Your task to perform on an android device: delete a single message in the gmail app Image 0: 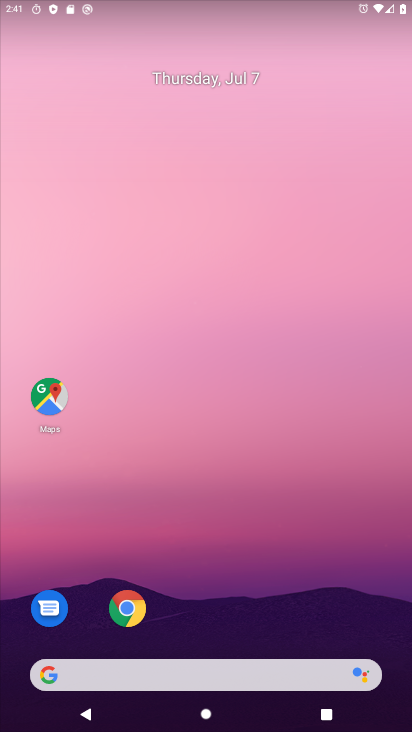
Step 0: drag from (266, 716) to (206, 59)
Your task to perform on an android device: delete a single message in the gmail app Image 1: 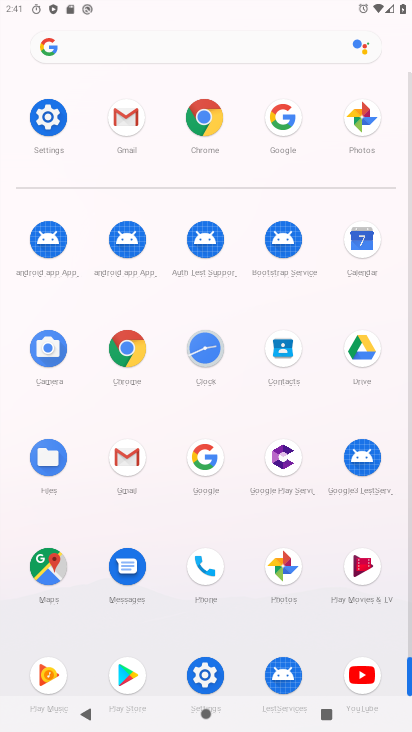
Step 1: click (131, 450)
Your task to perform on an android device: delete a single message in the gmail app Image 2: 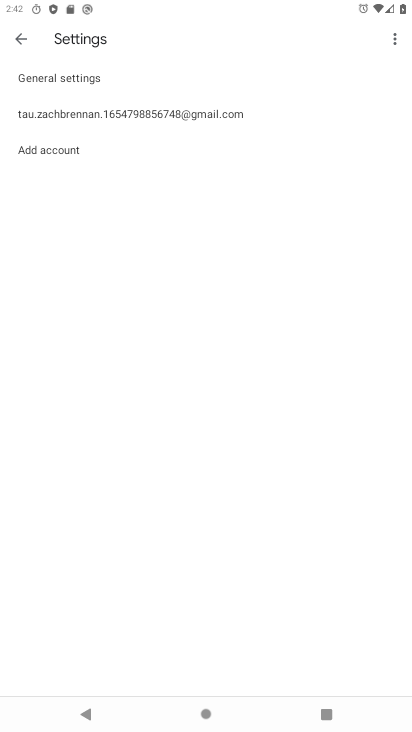
Step 2: click (21, 39)
Your task to perform on an android device: delete a single message in the gmail app Image 3: 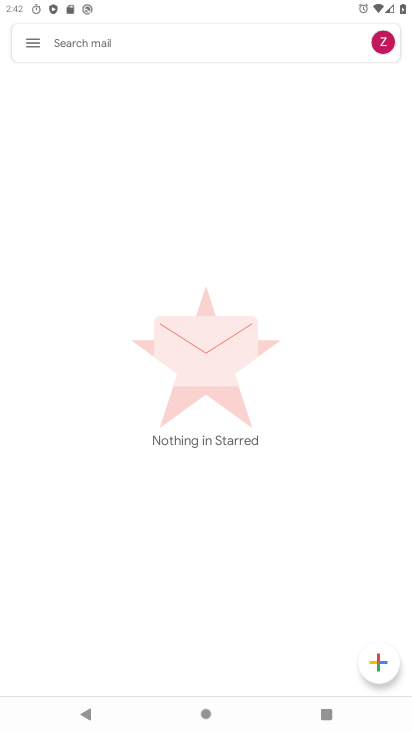
Step 3: click (27, 39)
Your task to perform on an android device: delete a single message in the gmail app Image 4: 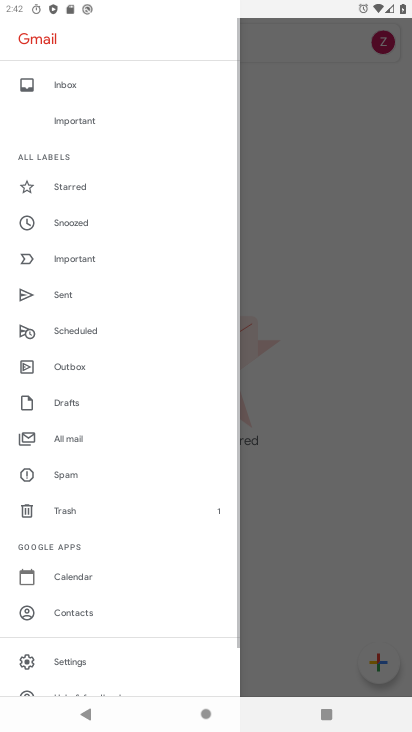
Step 4: click (77, 85)
Your task to perform on an android device: delete a single message in the gmail app Image 5: 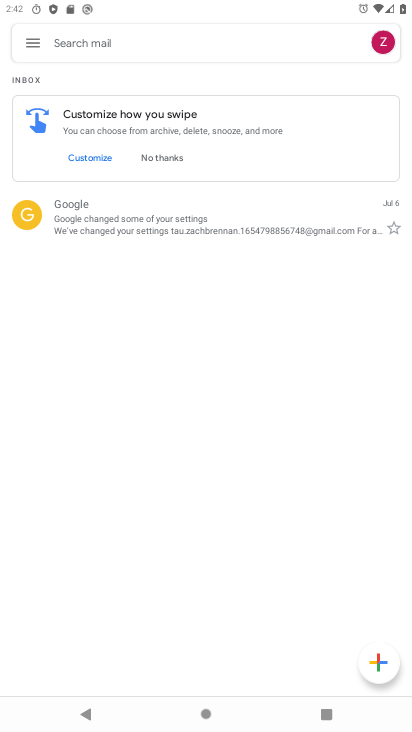
Step 5: click (184, 215)
Your task to perform on an android device: delete a single message in the gmail app Image 6: 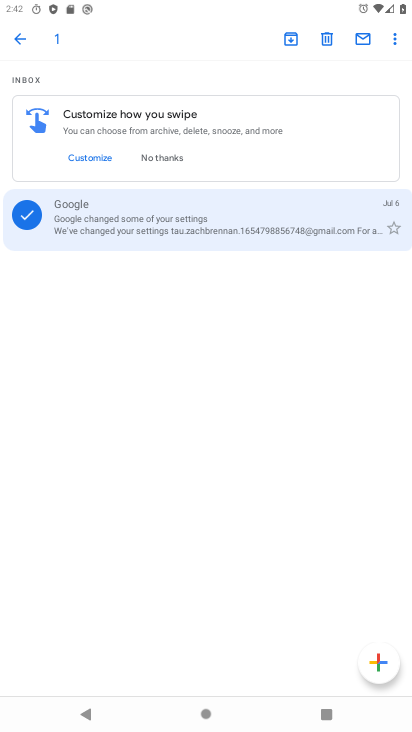
Step 6: click (329, 35)
Your task to perform on an android device: delete a single message in the gmail app Image 7: 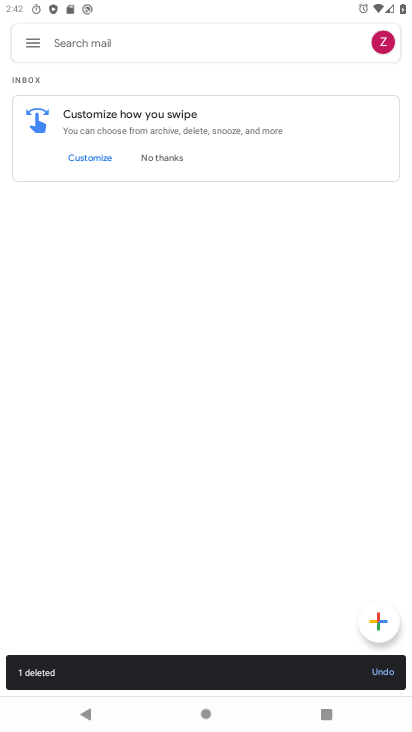
Step 7: task complete